Your task to perform on an android device: clear history in the chrome app Image 0: 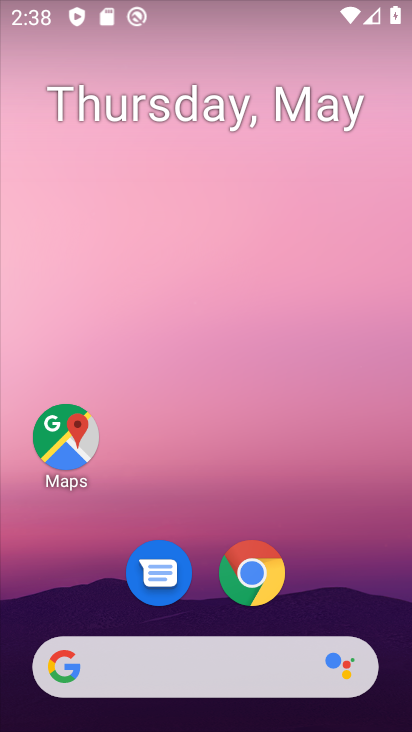
Step 0: click (252, 568)
Your task to perform on an android device: clear history in the chrome app Image 1: 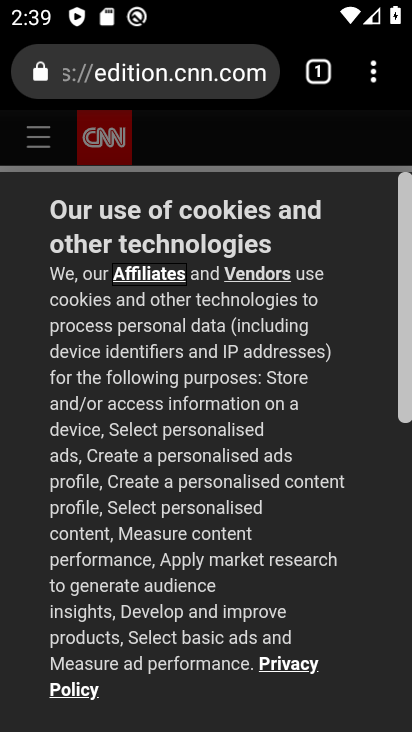
Step 1: click (381, 67)
Your task to perform on an android device: clear history in the chrome app Image 2: 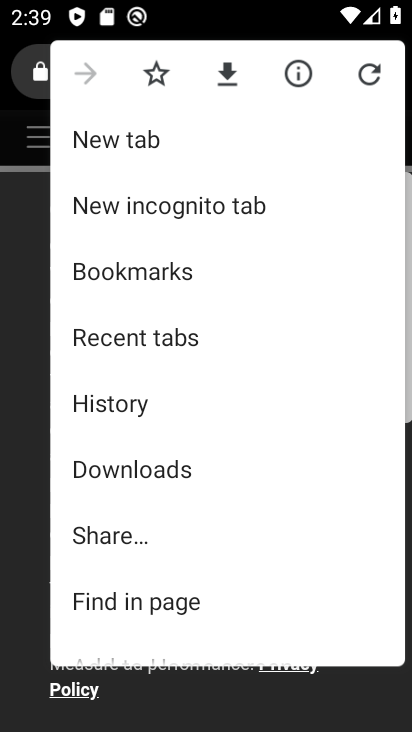
Step 2: drag from (203, 534) to (170, 207)
Your task to perform on an android device: clear history in the chrome app Image 3: 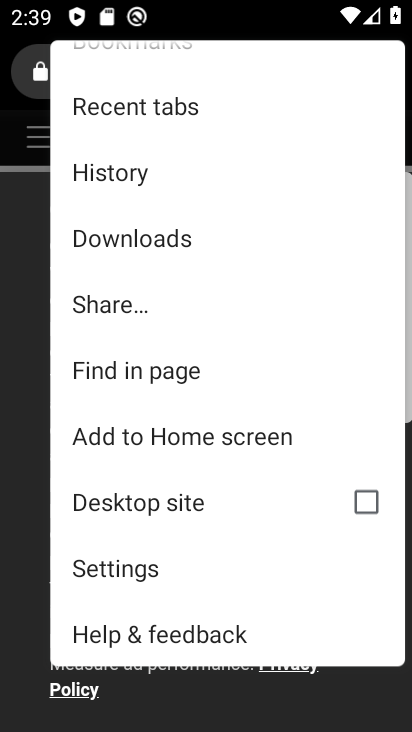
Step 3: drag from (230, 546) to (207, 299)
Your task to perform on an android device: clear history in the chrome app Image 4: 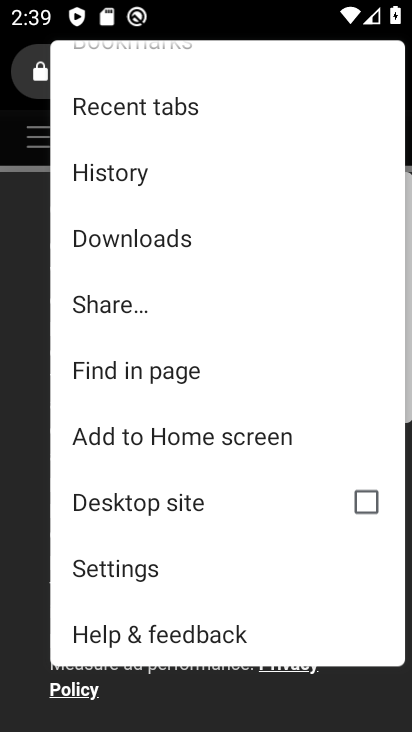
Step 4: drag from (266, 287) to (226, 720)
Your task to perform on an android device: clear history in the chrome app Image 5: 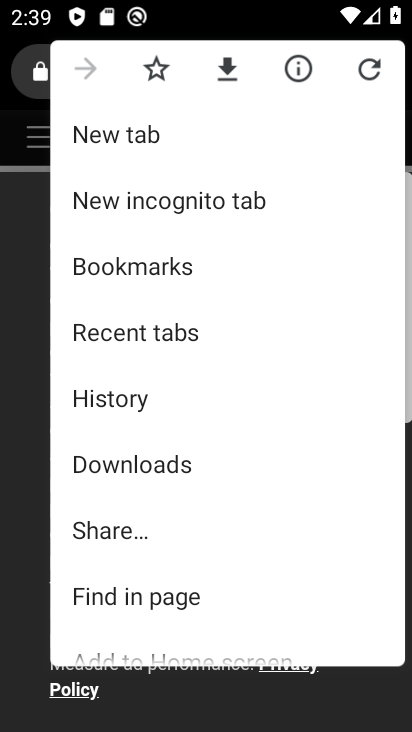
Step 5: click (110, 400)
Your task to perform on an android device: clear history in the chrome app Image 6: 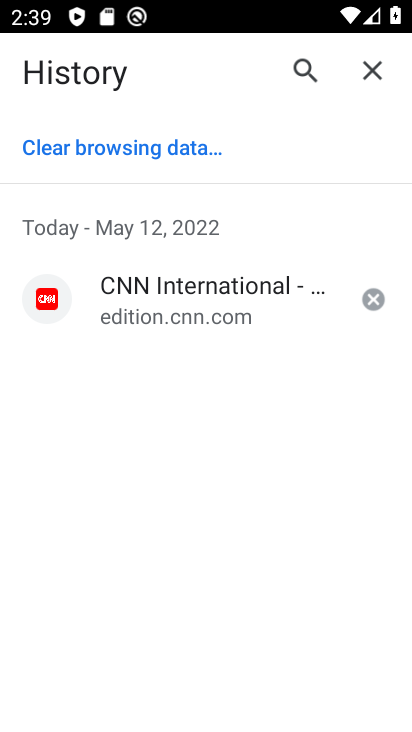
Step 6: click (126, 141)
Your task to perform on an android device: clear history in the chrome app Image 7: 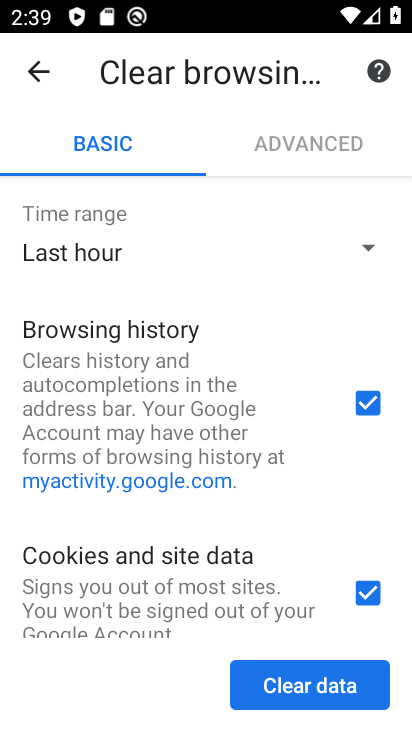
Step 7: click (315, 672)
Your task to perform on an android device: clear history in the chrome app Image 8: 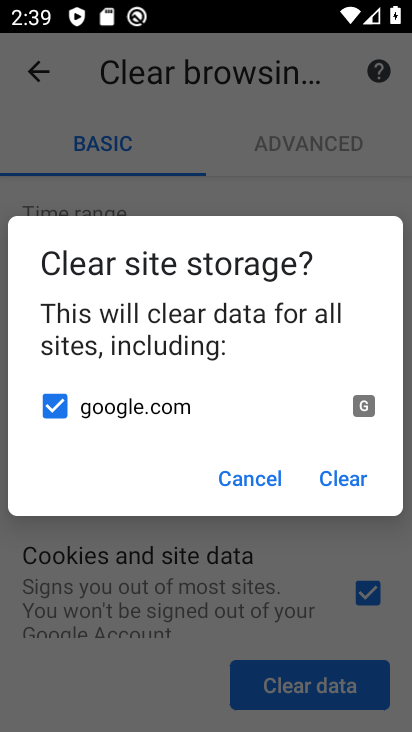
Step 8: click (362, 471)
Your task to perform on an android device: clear history in the chrome app Image 9: 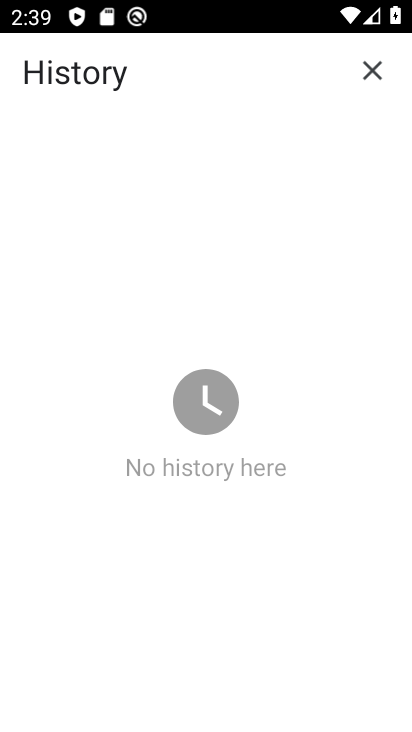
Step 9: task complete